Your task to perform on an android device: Go to internet settings Image 0: 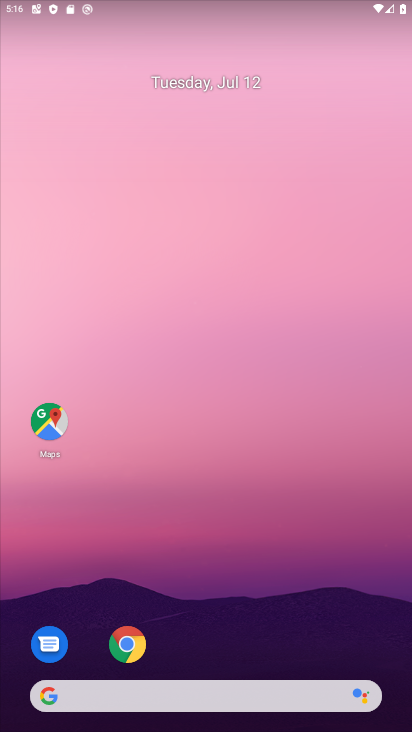
Step 0: drag from (264, 638) to (173, 42)
Your task to perform on an android device: Go to internet settings Image 1: 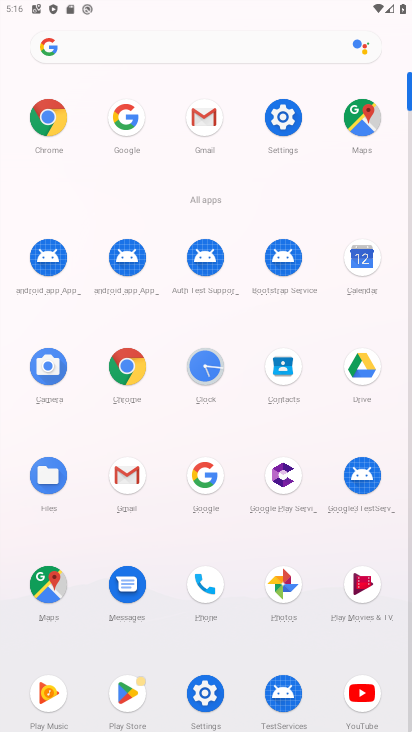
Step 1: click (272, 137)
Your task to perform on an android device: Go to internet settings Image 2: 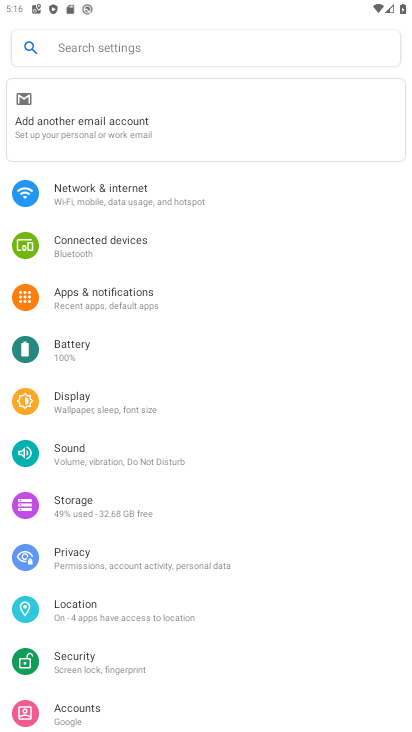
Step 2: click (132, 201)
Your task to perform on an android device: Go to internet settings Image 3: 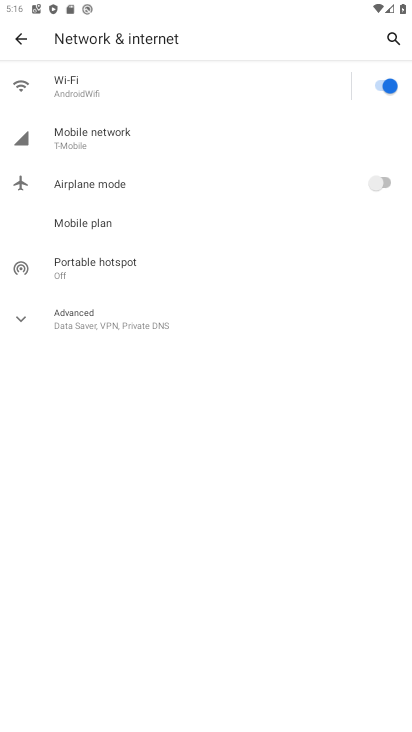
Step 3: task complete